Your task to perform on an android device: turn off location Image 0: 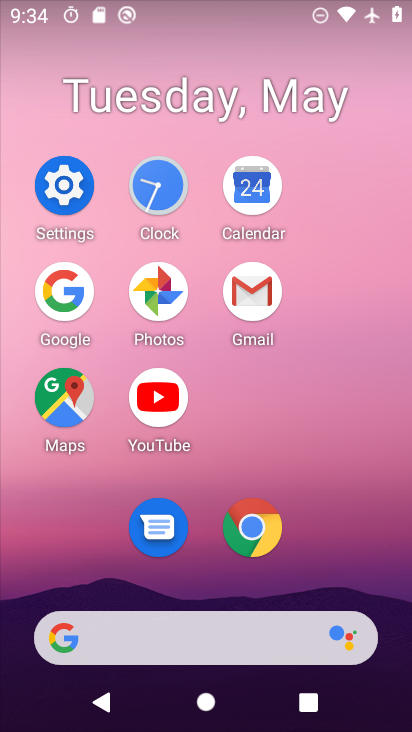
Step 0: click (68, 179)
Your task to perform on an android device: turn off location Image 1: 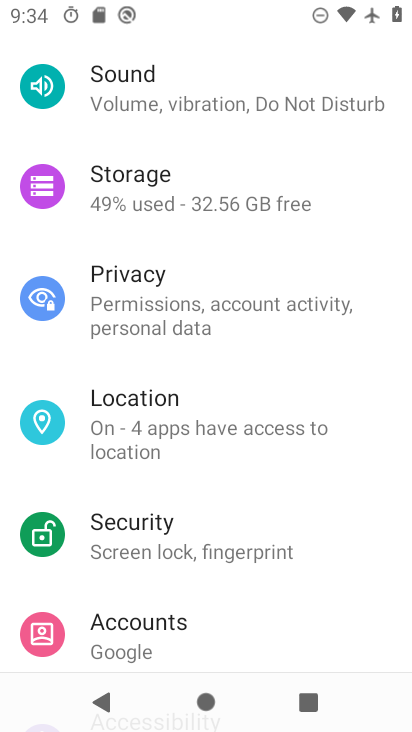
Step 1: click (223, 405)
Your task to perform on an android device: turn off location Image 2: 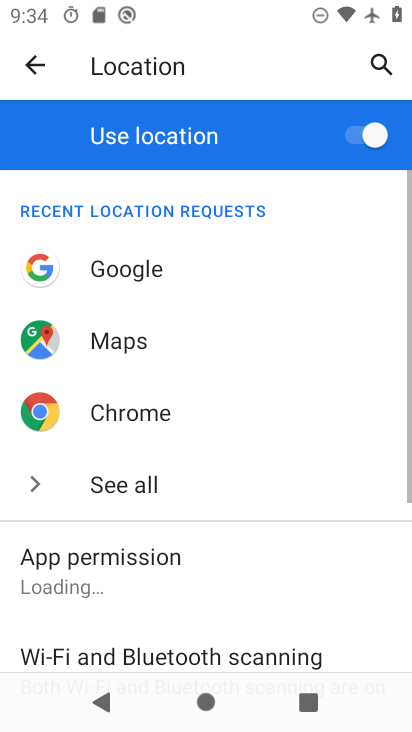
Step 2: click (367, 123)
Your task to perform on an android device: turn off location Image 3: 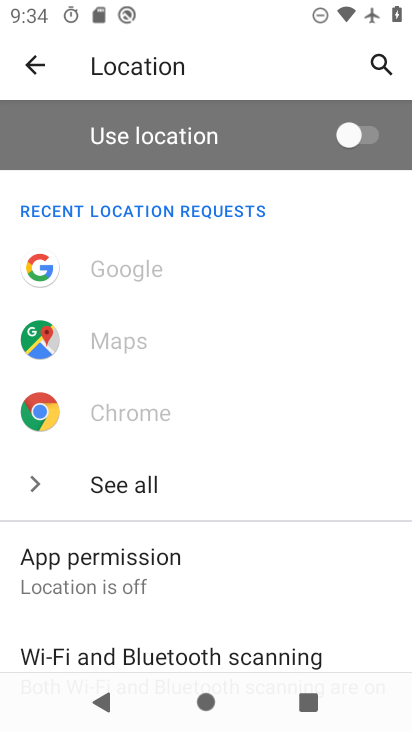
Step 3: task complete